Your task to perform on an android device: Go to privacy settings Image 0: 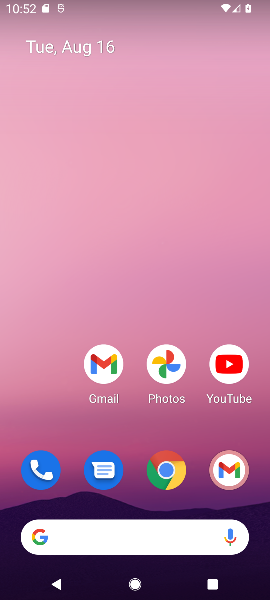
Step 0: drag from (45, 390) to (170, 0)
Your task to perform on an android device: Go to privacy settings Image 1: 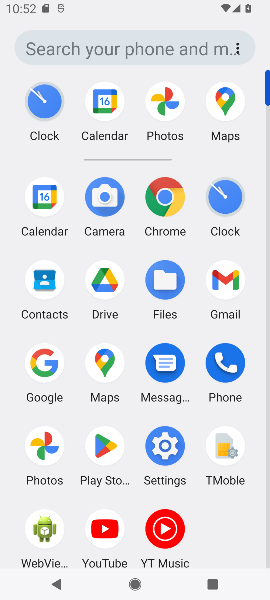
Step 1: click (161, 447)
Your task to perform on an android device: Go to privacy settings Image 2: 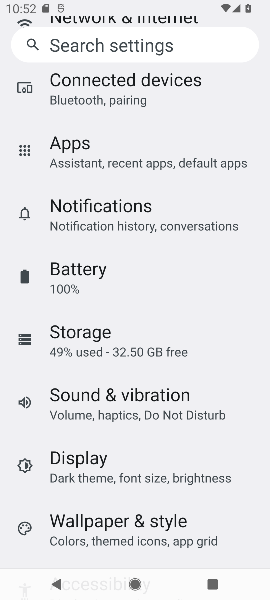
Step 2: drag from (131, 351) to (155, 52)
Your task to perform on an android device: Go to privacy settings Image 3: 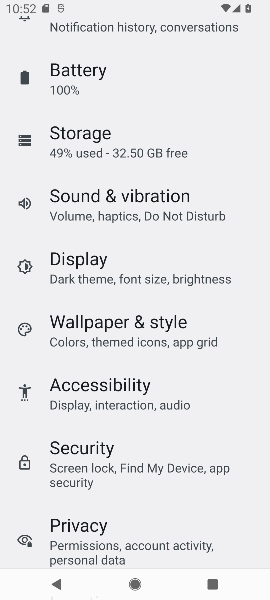
Step 3: click (93, 524)
Your task to perform on an android device: Go to privacy settings Image 4: 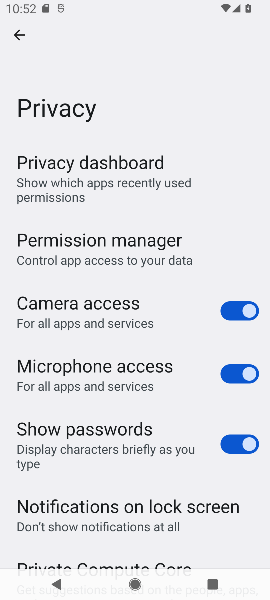
Step 4: task complete